Your task to perform on an android device: What's the weather going to be tomorrow? Image 0: 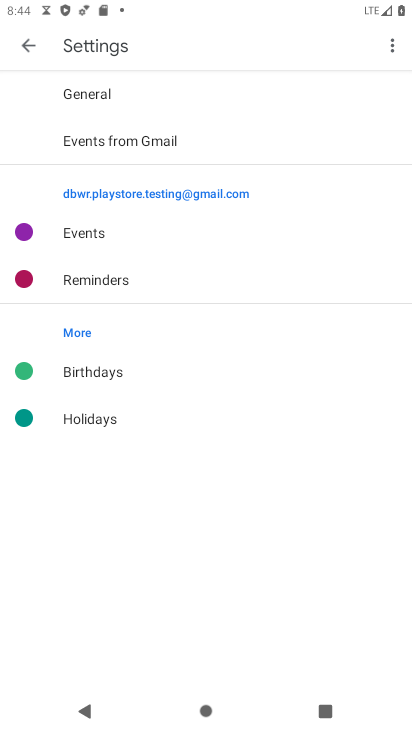
Step 0: press back button
Your task to perform on an android device: What's the weather going to be tomorrow? Image 1: 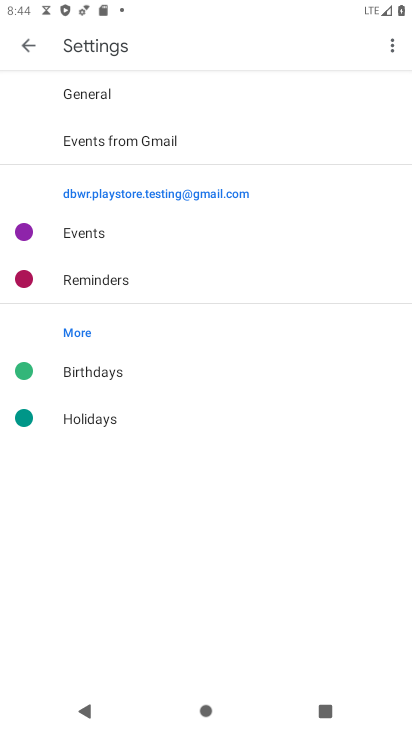
Step 1: press back button
Your task to perform on an android device: What's the weather going to be tomorrow? Image 2: 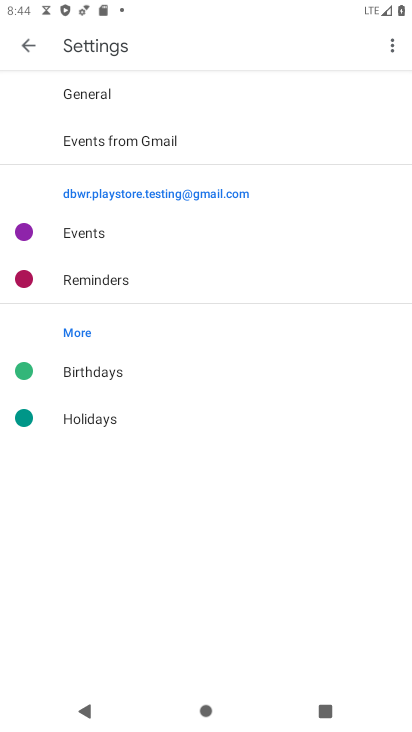
Step 2: press back button
Your task to perform on an android device: What's the weather going to be tomorrow? Image 3: 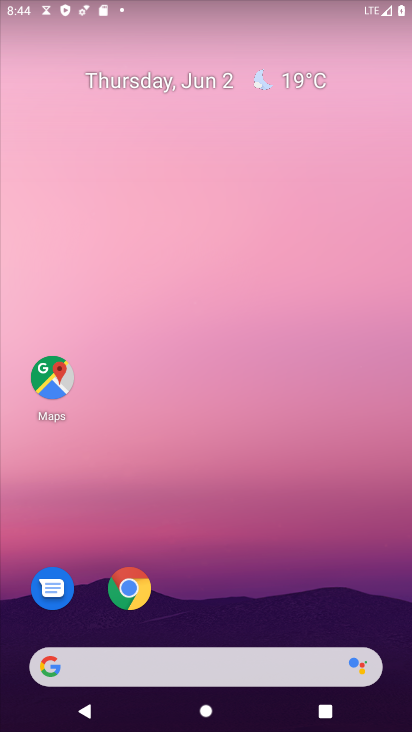
Step 3: click (284, 91)
Your task to perform on an android device: What's the weather going to be tomorrow? Image 4: 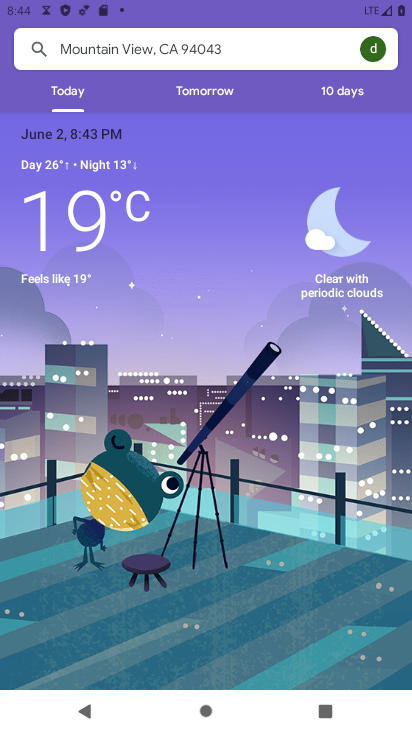
Step 4: click (225, 95)
Your task to perform on an android device: What's the weather going to be tomorrow? Image 5: 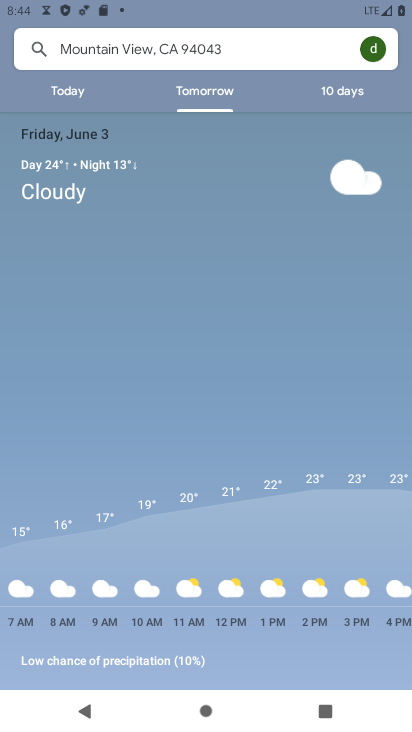
Step 5: task complete